Your task to perform on an android device: What's the weather today? Image 0: 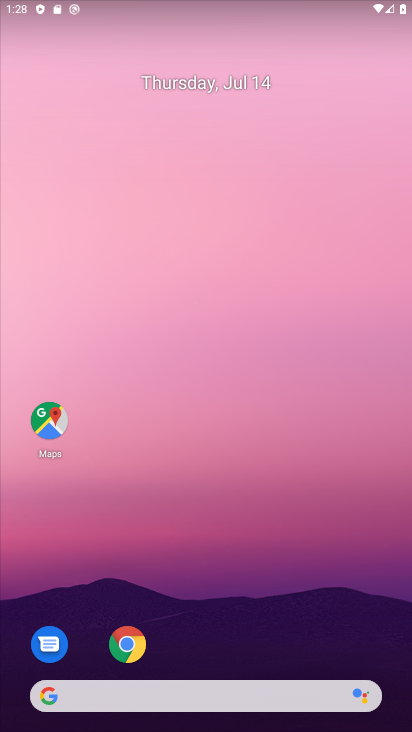
Step 0: drag from (247, 631) to (194, 184)
Your task to perform on an android device: What's the weather today? Image 1: 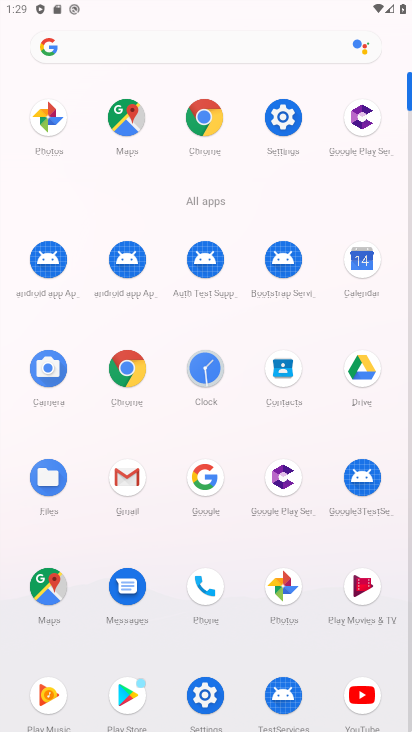
Step 1: click (208, 125)
Your task to perform on an android device: What's the weather today? Image 2: 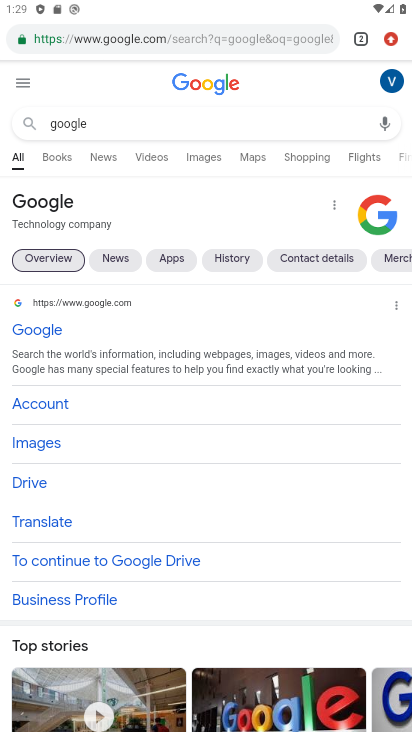
Step 2: click (227, 33)
Your task to perform on an android device: What's the weather today? Image 3: 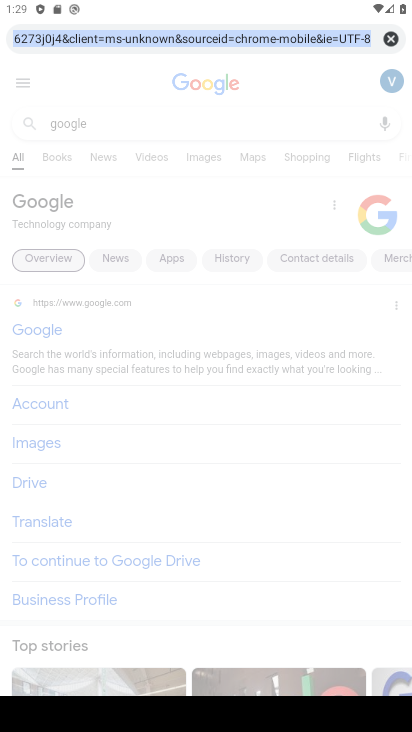
Step 3: type "What's the weather today?"
Your task to perform on an android device: What's the weather today? Image 4: 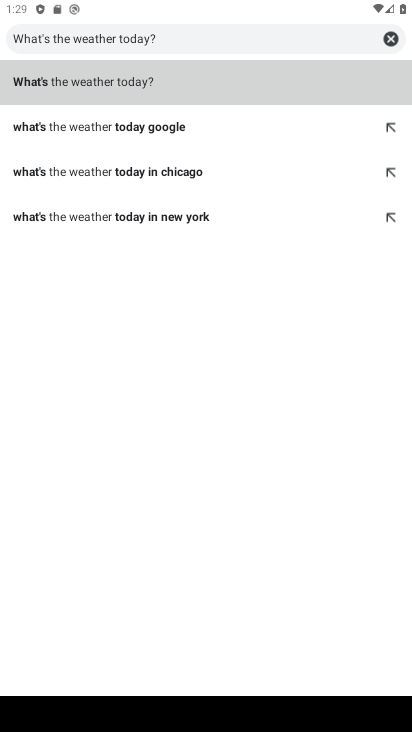
Step 4: click (33, 92)
Your task to perform on an android device: What's the weather today? Image 5: 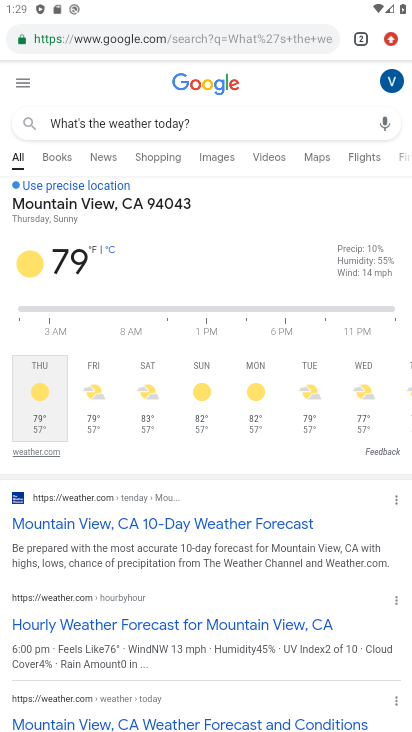
Step 5: task complete